Your task to perform on an android device: Open location settings Image 0: 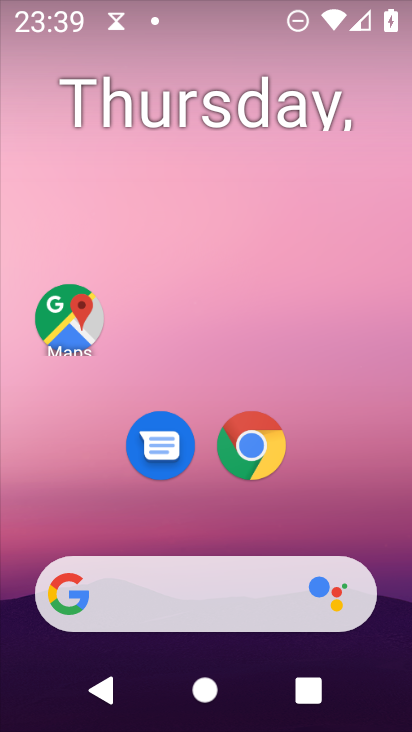
Step 0: drag from (222, 721) to (224, 72)
Your task to perform on an android device: Open location settings Image 1: 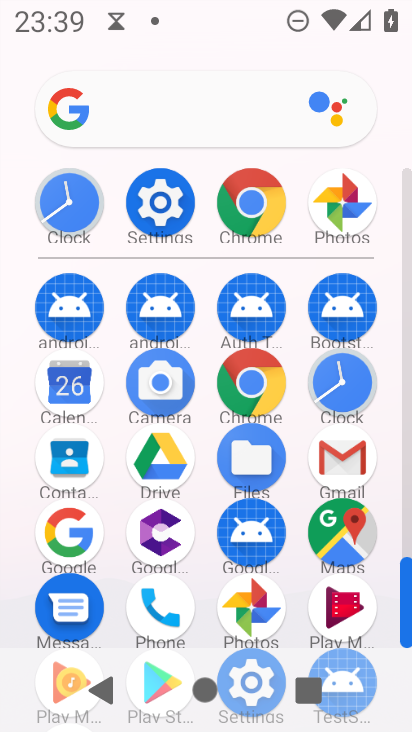
Step 1: click (176, 205)
Your task to perform on an android device: Open location settings Image 2: 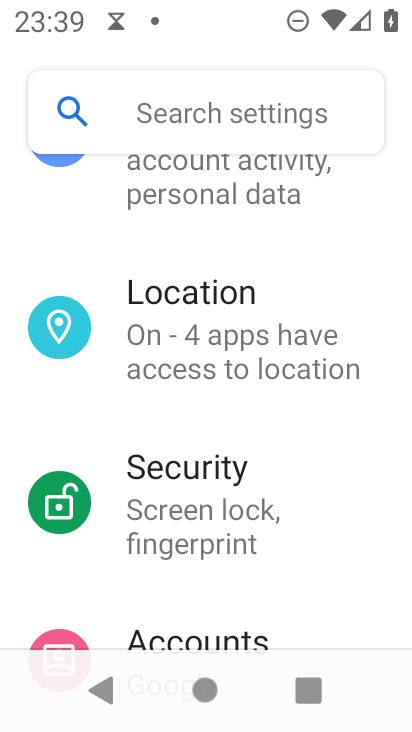
Step 2: click (187, 320)
Your task to perform on an android device: Open location settings Image 3: 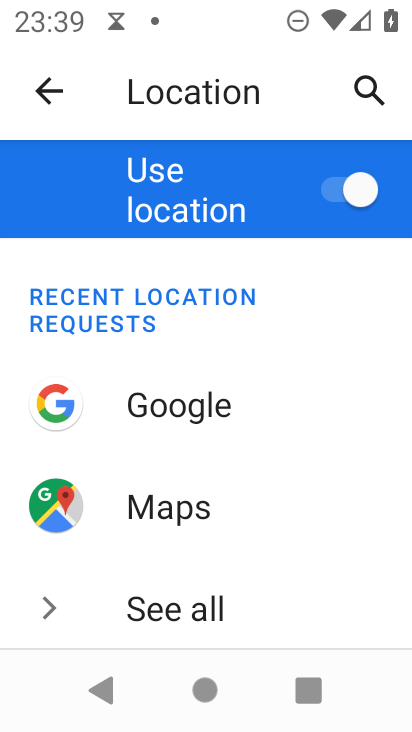
Step 3: task complete